Your task to perform on an android device: Turn on the flashlight Image 0: 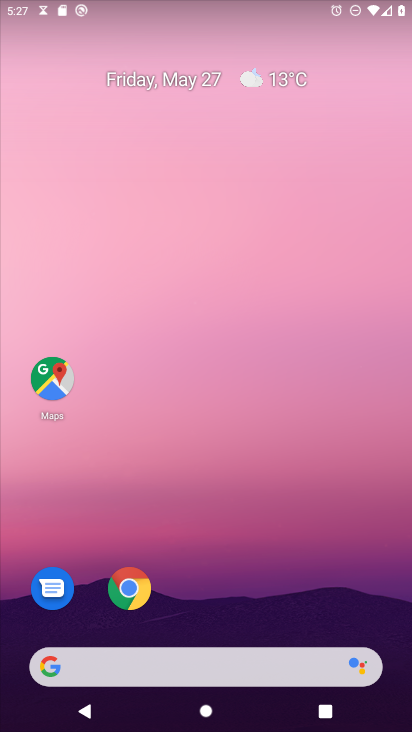
Step 0: drag from (226, 557) to (304, 35)
Your task to perform on an android device: Turn on the flashlight Image 1: 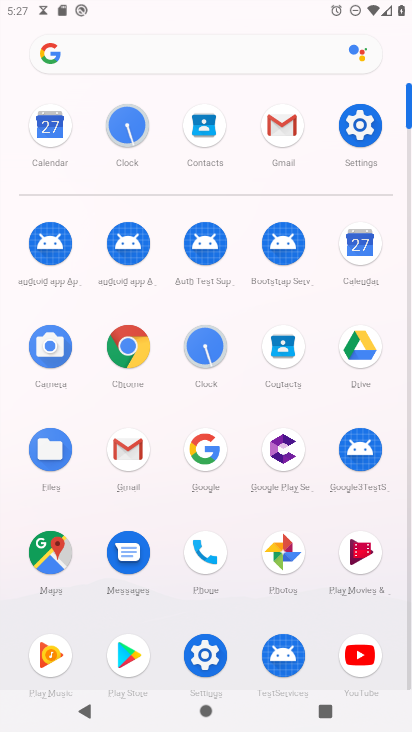
Step 1: click (366, 120)
Your task to perform on an android device: Turn on the flashlight Image 2: 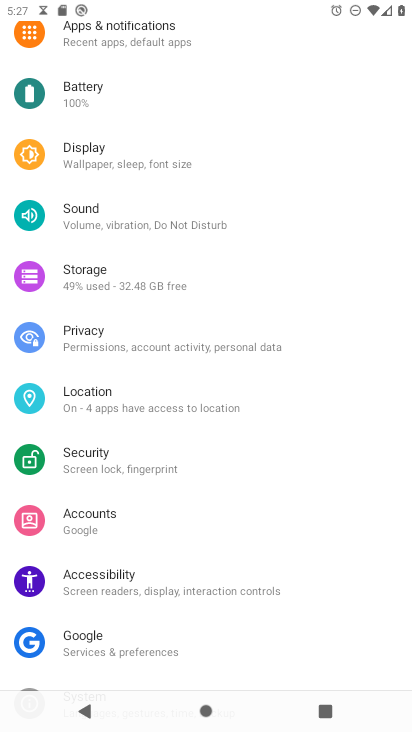
Step 2: drag from (208, 146) to (168, 621)
Your task to perform on an android device: Turn on the flashlight Image 3: 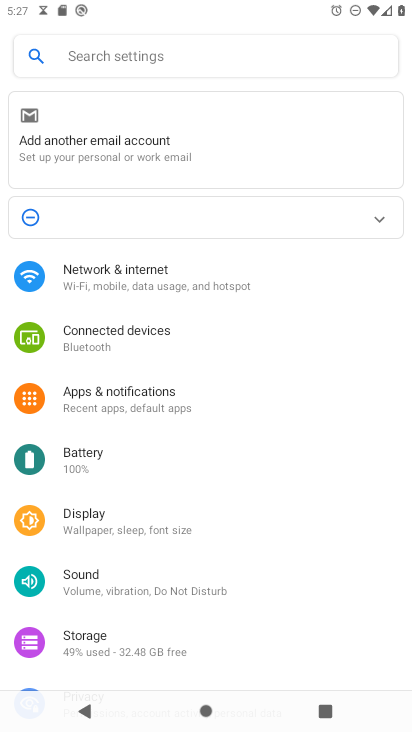
Step 3: click (129, 54)
Your task to perform on an android device: Turn on the flashlight Image 4: 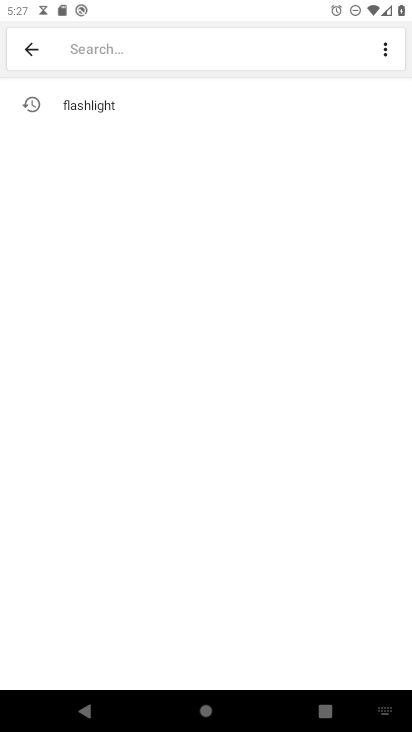
Step 4: type "flashlight"
Your task to perform on an android device: Turn on the flashlight Image 5: 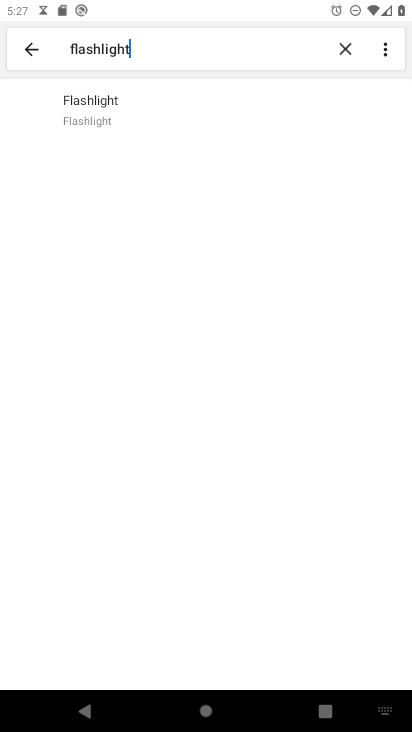
Step 5: click (119, 103)
Your task to perform on an android device: Turn on the flashlight Image 6: 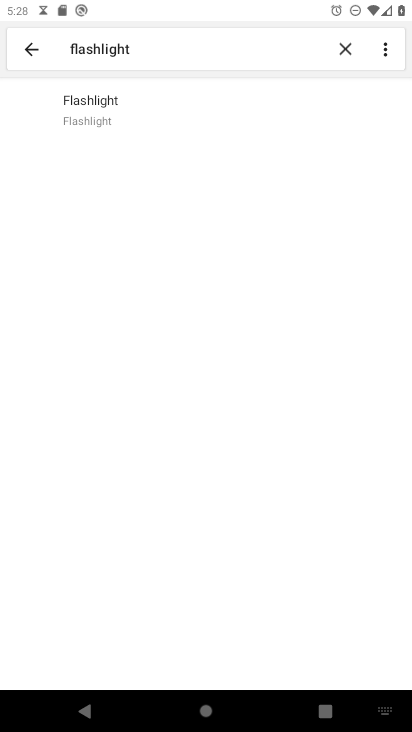
Step 6: task complete